Your task to perform on an android device: Open calendar and show me the first week of next month Image 0: 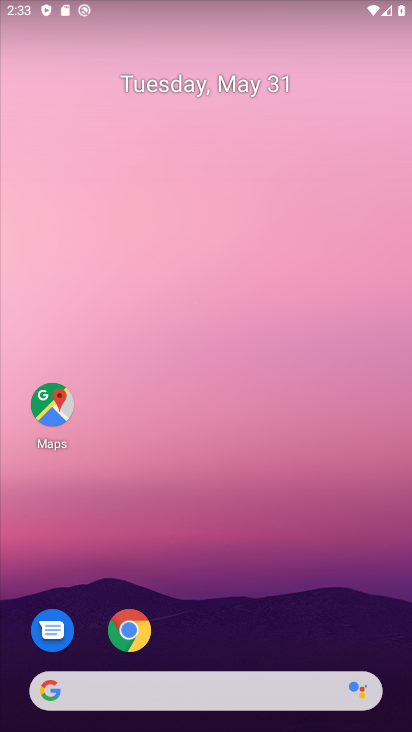
Step 0: drag from (204, 608) to (190, 82)
Your task to perform on an android device: Open calendar and show me the first week of next month Image 1: 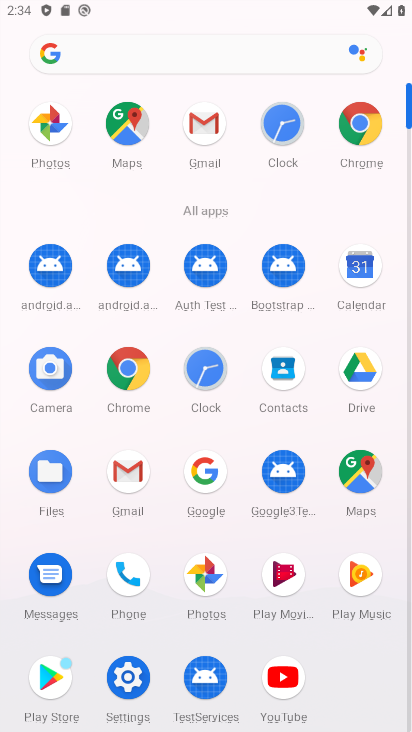
Step 1: click (349, 269)
Your task to perform on an android device: Open calendar and show me the first week of next month Image 2: 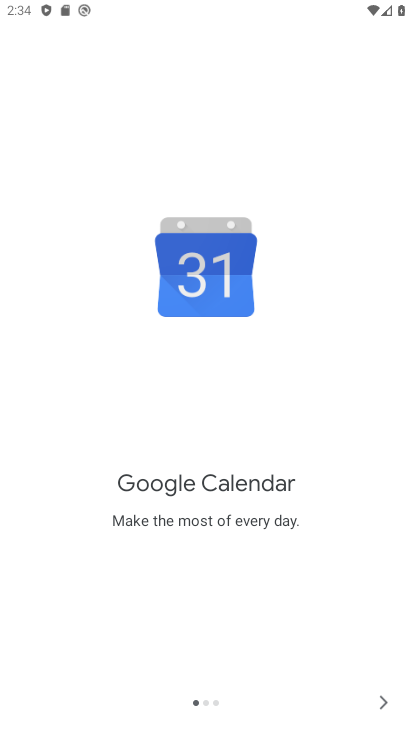
Step 2: click (380, 702)
Your task to perform on an android device: Open calendar and show me the first week of next month Image 3: 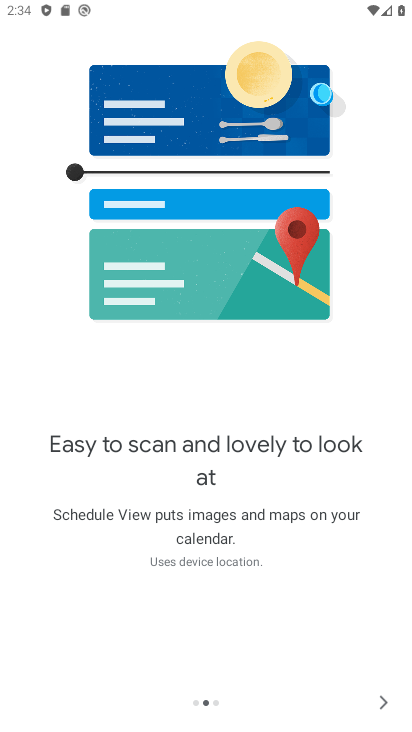
Step 3: click (380, 702)
Your task to perform on an android device: Open calendar and show me the first week of next month Image 4: 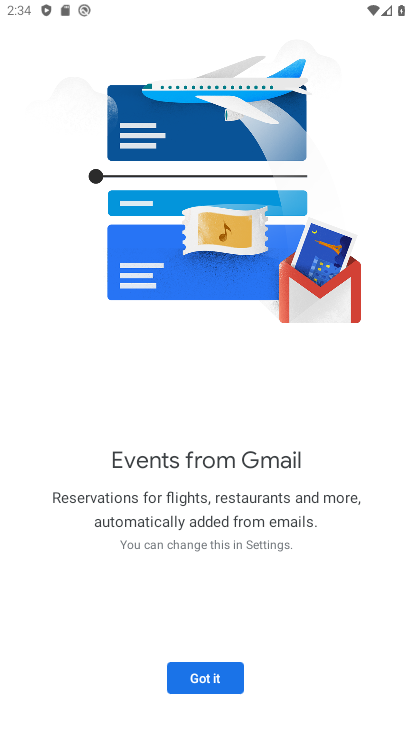
Step 4: click (205, 675)
Your task to perform on an android device: Open calendar and show me the first week of next month Image 5: 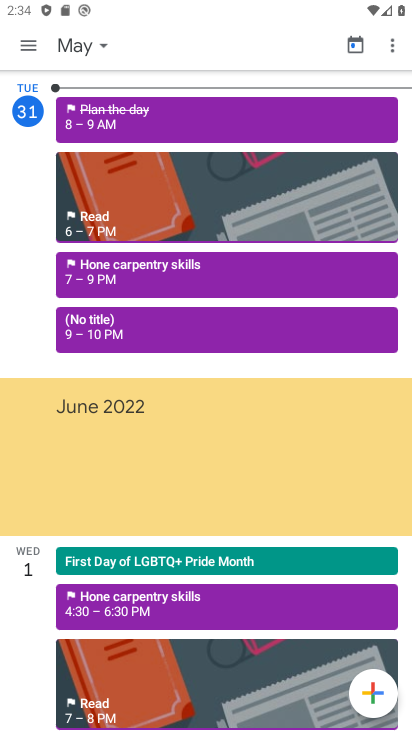
Step 5: click (92, 40)
Your task to perform on an android device: Open calendar and show me the first week of next month Image 6: 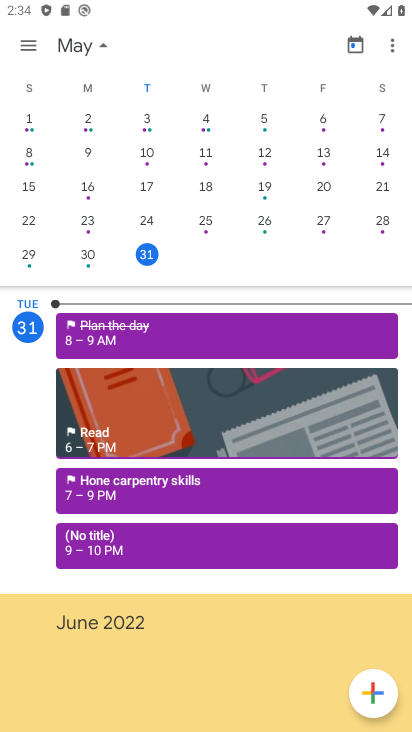
Step 6: drag from (317, 182) to (36, 182)
Your task to perform on an android device: Open calendar and show me the first week of next month Image 7: 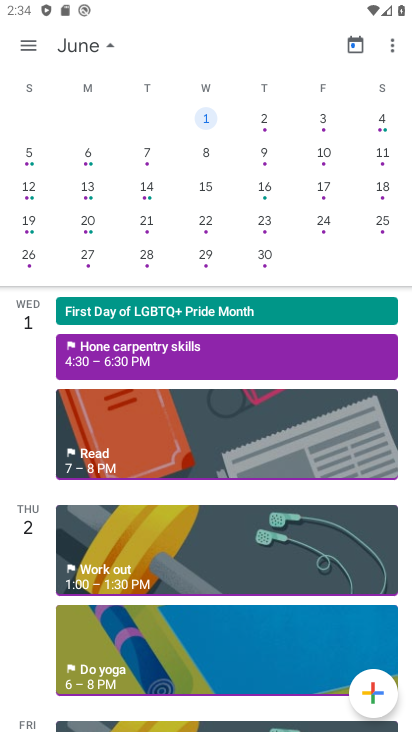
Step 7: click (327, 120)
Your task to perform on an android device: Open calendar and show me the first week of next month Image 8: 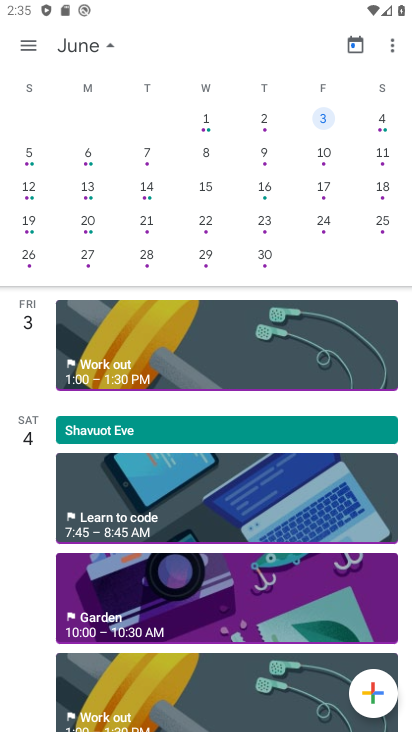
Step 8: task complete